Your task to perform on an android device: add a contact Image 0: 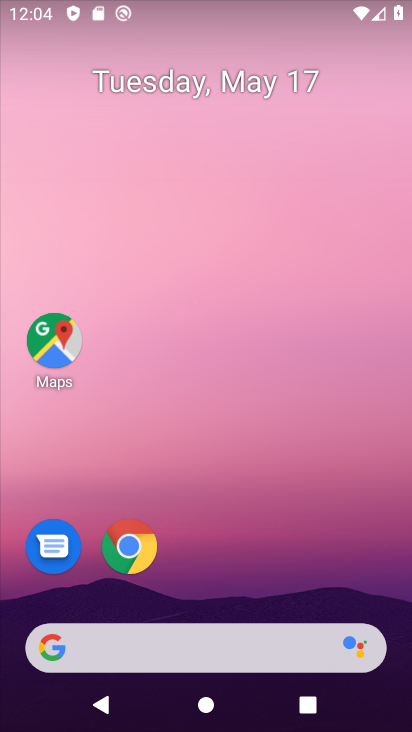
Step 0: drag from (217, 587) to (262, 9)
Your task to perform on an android device: add a contact Image 1: 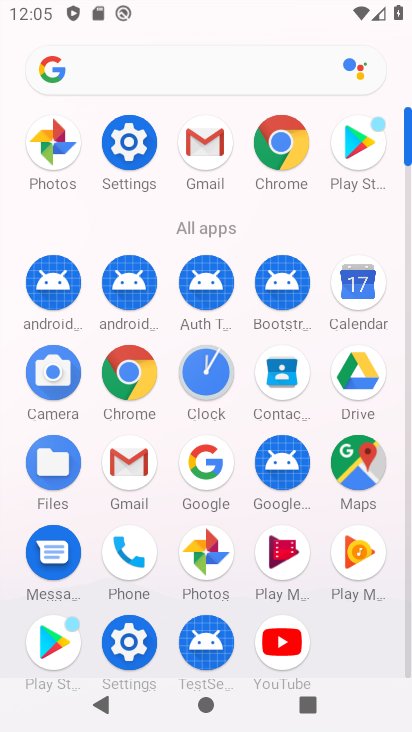
Step 1: click (277, 366)
Your task to perform on an android device: add a contact Image 2: 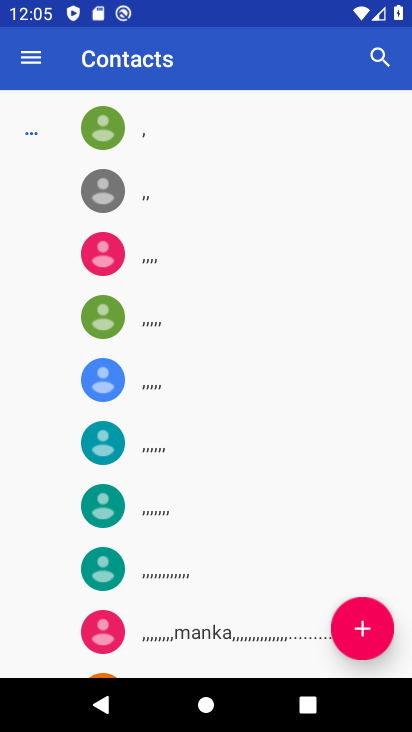
Step 2: click (362, 620)
Your task to perform on an android device: add a contact Image 3: 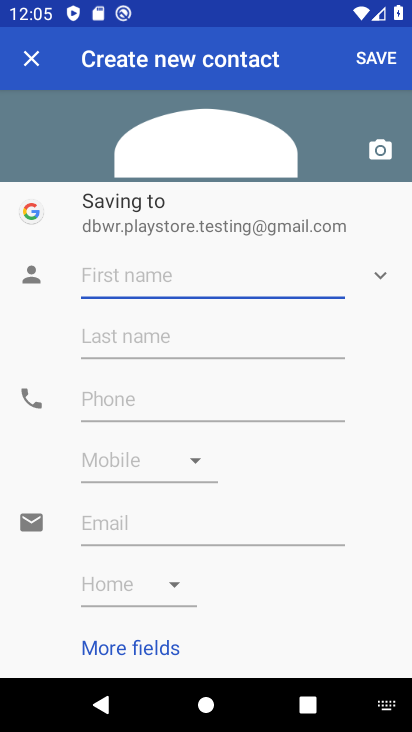
Step 3: type "ghgfhb"
Your task to perform on an android device: add a contact Image 4: 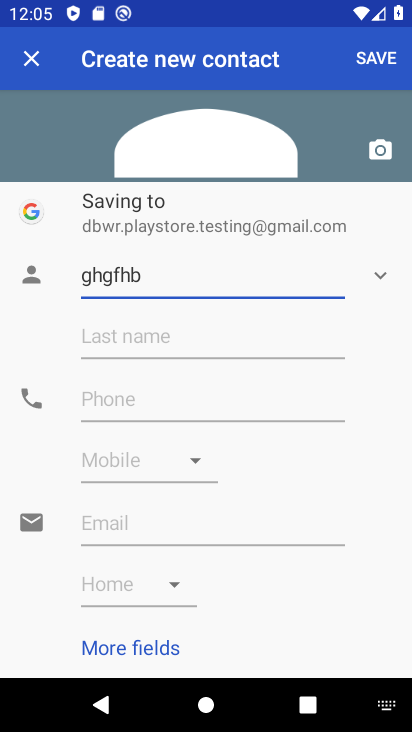
Step 4: click (387, 65)
Your task to perform on an android device: add a contact Image 5: 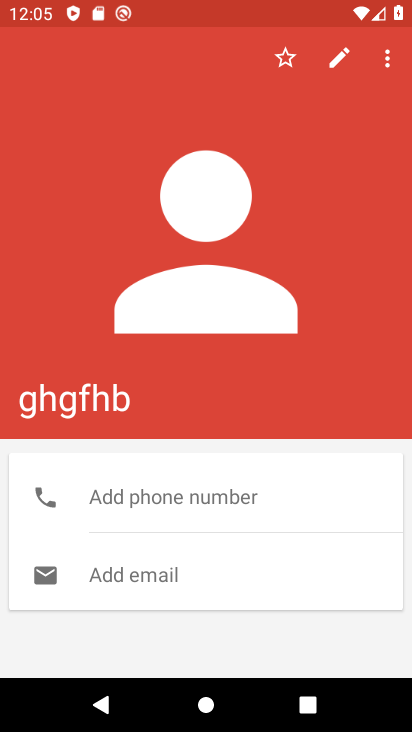
Step 5: task complete